Your task to perform on an android device: turn off improve location accuracy Image 0: 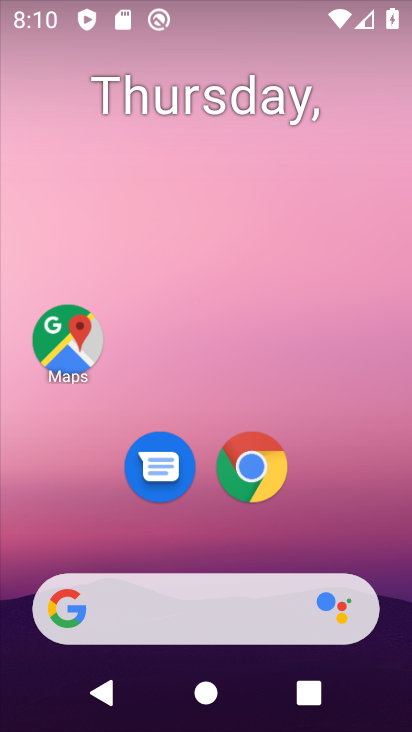
Step 0: drag from (346, 524) to (233, 9)
Your task to perform on an android device: turn off improve location accuracy Image 1: 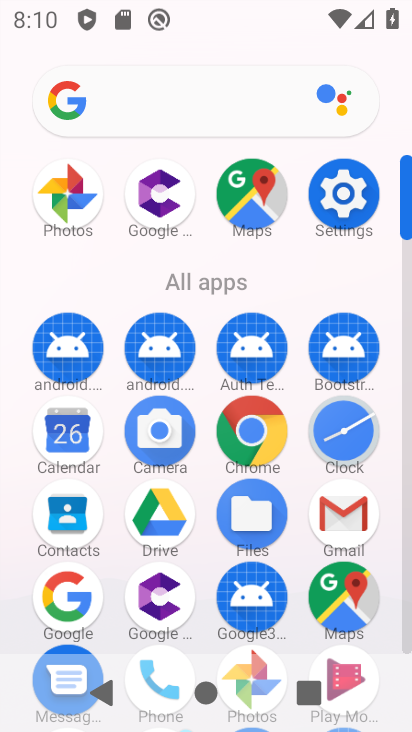
Step 1: click (344, 193)
Your task to perform on an android device: turn off improve location accuracy Image 2: 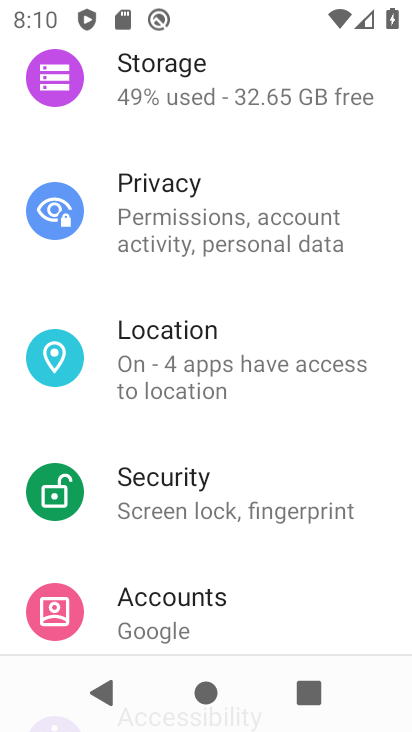
Step 2: drag from (228, 156) to (287, 513)
Your task to perform on an android device: turn off improve location accuracy Image 3: 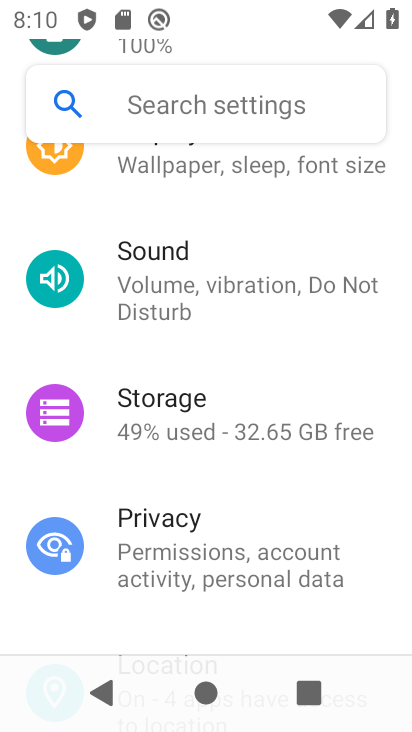
Step 3: drag from (232, 232) to (291, 616)
Your task to perform on an android device: turn off improve location accuracy Image 4: 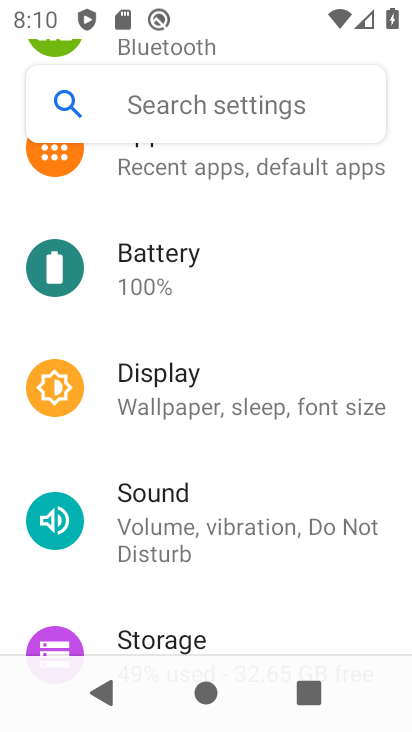
Step 4: drag from (262, 572) to (194, 127)
Your task to perform on an android device: turn off improve location accuracy Image 5: 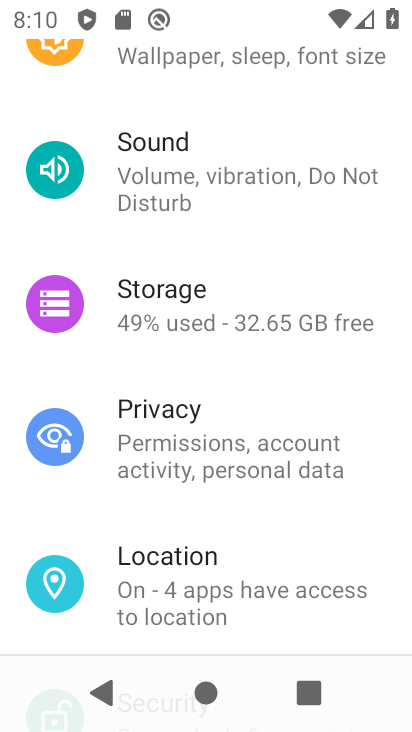
Step 5: drag from (239, 502) to (209, 184)
Your task to perform on an android device: turn off improve location accuracy Image 6: 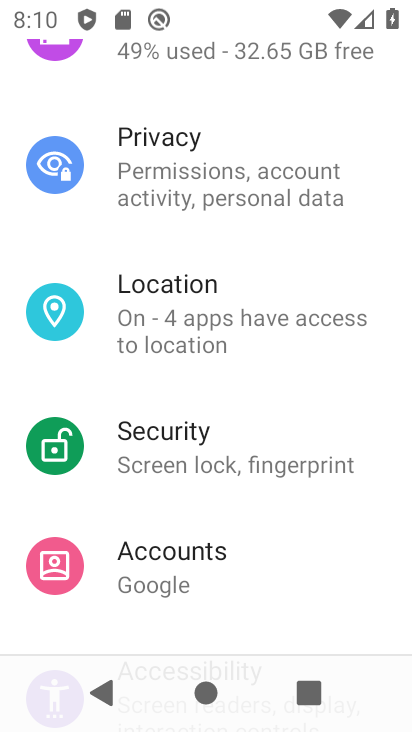
Step 6: click (190, 281)
Your task to perform on an android device: turn off improve location accuracy Image 7: 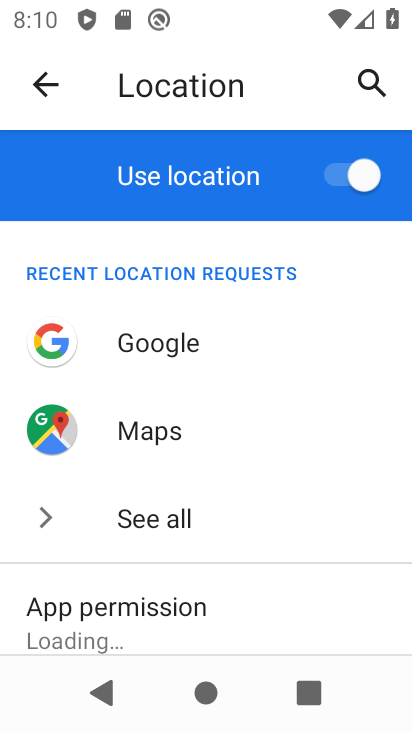
Step 7: drag from (243, 458) to (200, 80)
Your task to perform on an android device: turn off improve location accuracy Image 8: 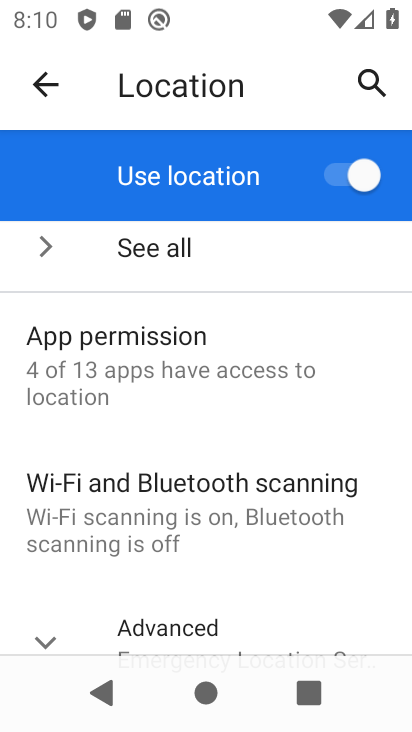
Step 8: click (46, 254)
Your task to perform on an android device: turn off improve location accuracy Image 9: 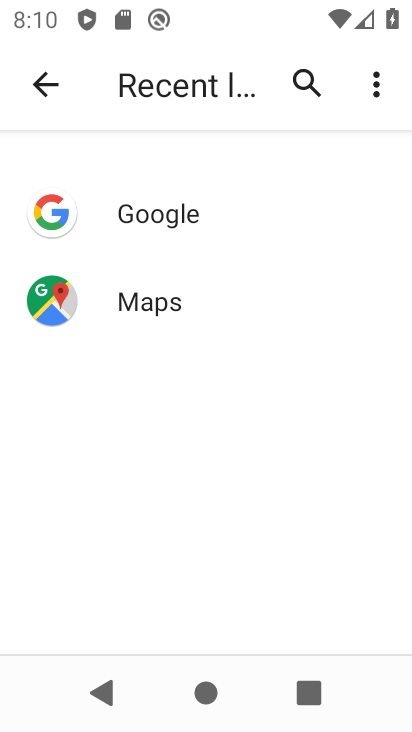
Step 9: click (50, 84)
Your task to perform on an android device: turn off improve location accuracy Image 10: 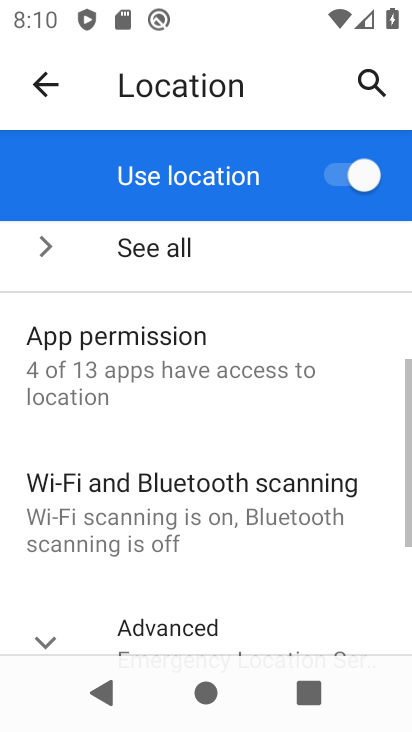
Step 10: drag from (253, 411) to (211, 98)
Your task to perform on an android device: turn off improve location accuracy Image 11: 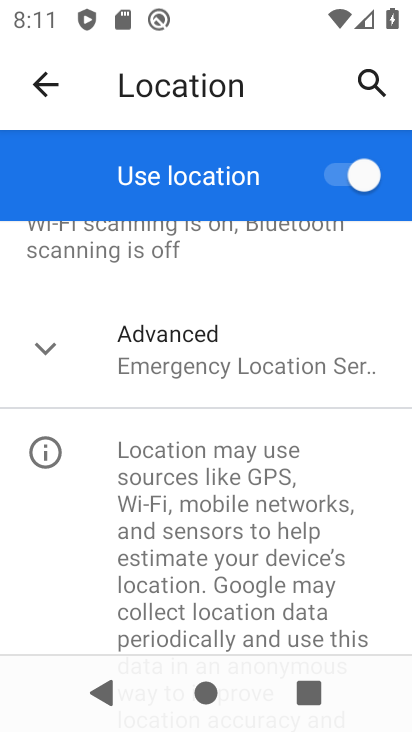
Step 11: click (41, 358)
Your task to perform on an android device: turn off improve location accuracy Image 12: 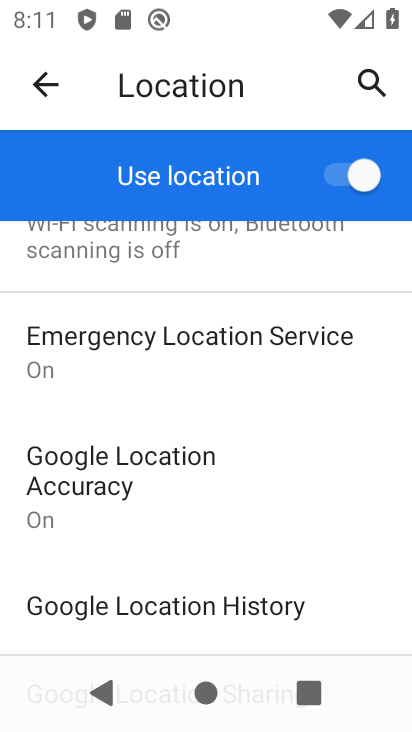
Step 12: click (117, 487)
Your task to perform on an android device: turn off improve location accuracy Image 13: 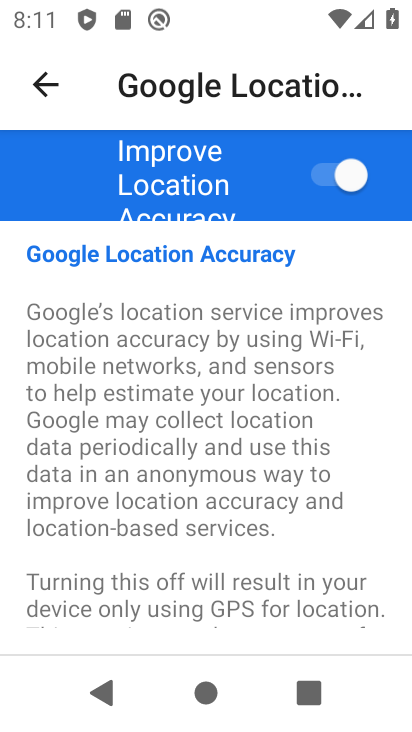
Step 13: click (341, 169)
Your task to perform on an android device: turn off improve location accuracy Image 14: 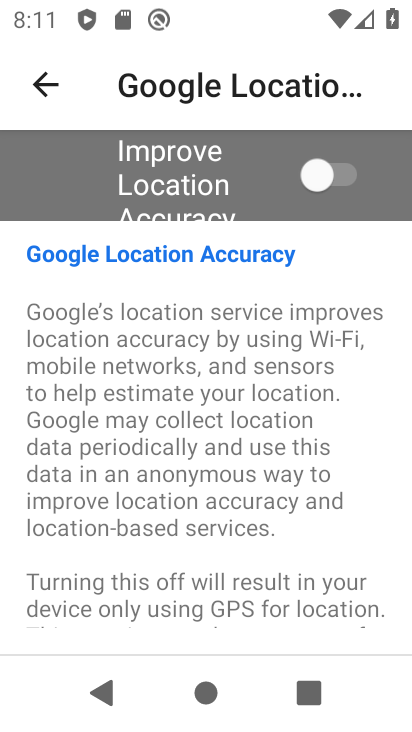
Step 14: task complete